Your task to perform on an android device: change text size in settings app Image 0: 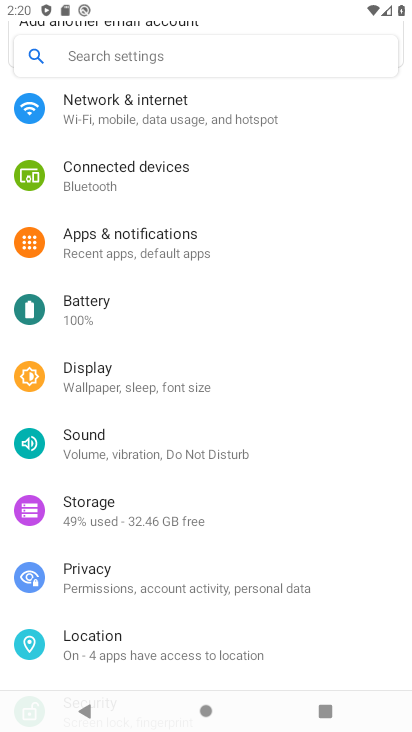
Step 0: click (231, 392)
Your task to perform on an android device: change text size in settings app Image 1: 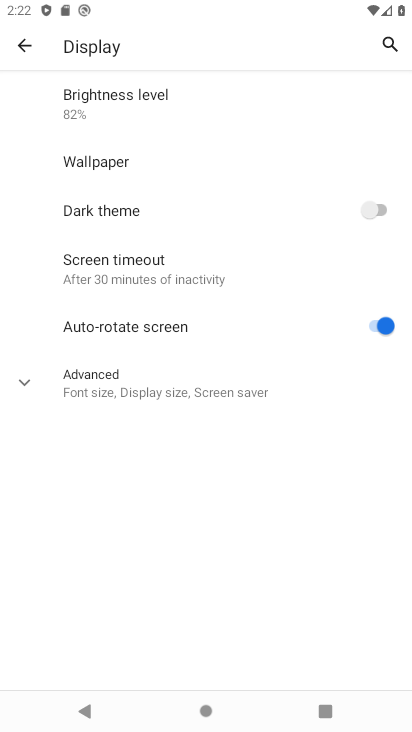
Step 1: click (186, 380)
Your task to perform on an android device: change text size in settings app Image 2: 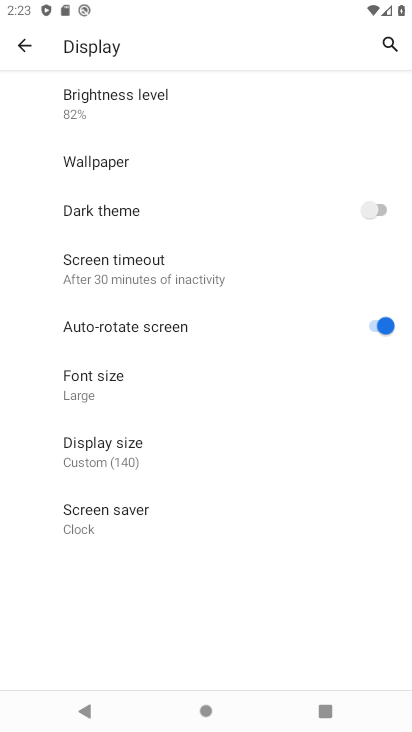
Step 2: click (136, 374)
Your task to perform on an android device: change text size in settings app Image 3: 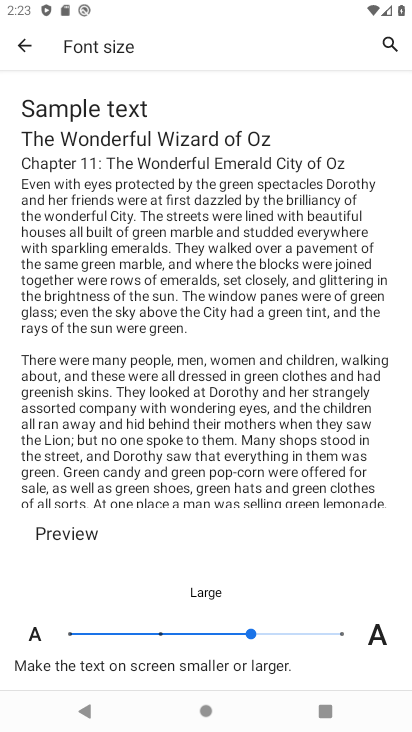
Step 3: click (212, 629)
Your task to perform on an android device: change text size in settings app Image 4: 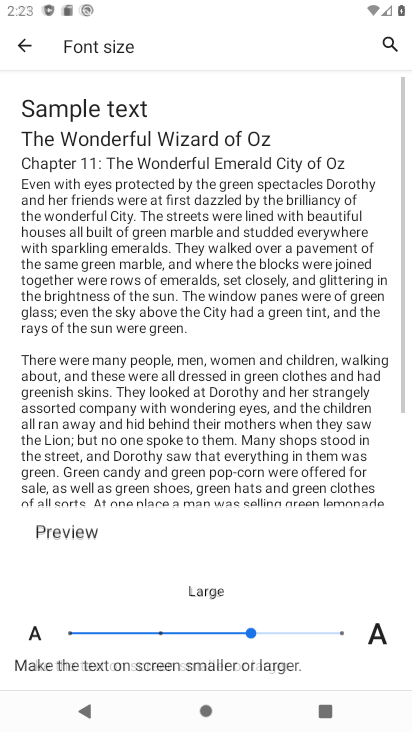
Step 4: task complete